Your task to perform on an android device: change the clock style Image 0: 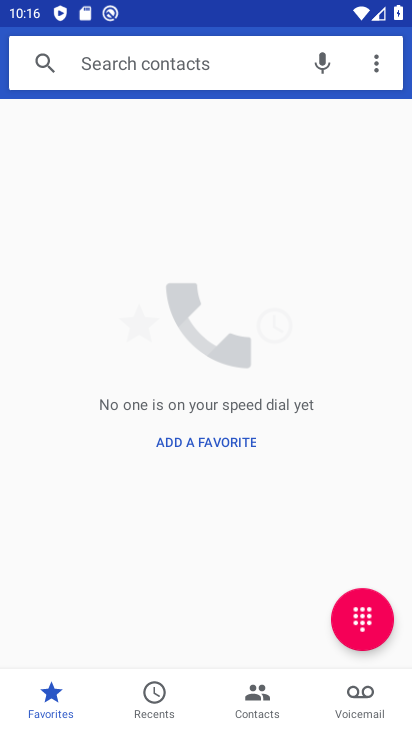
Step 0: press home button
Your task to perform on an android device: change the clock style Image 1: 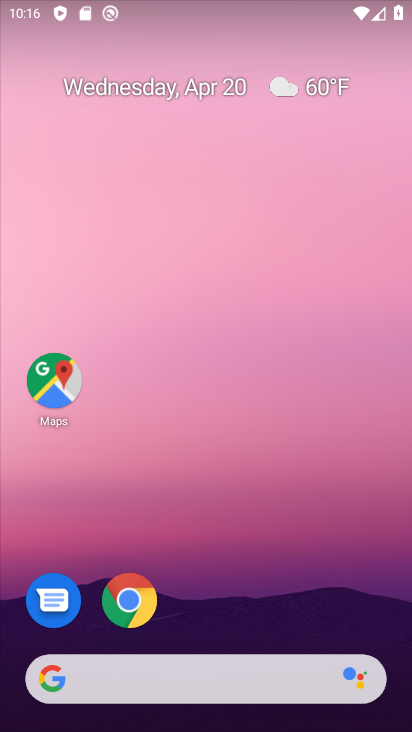
Step 1: drag from (319, 628) to (275, 42)
Your task to perform on an android device: change the clock style Image 2: 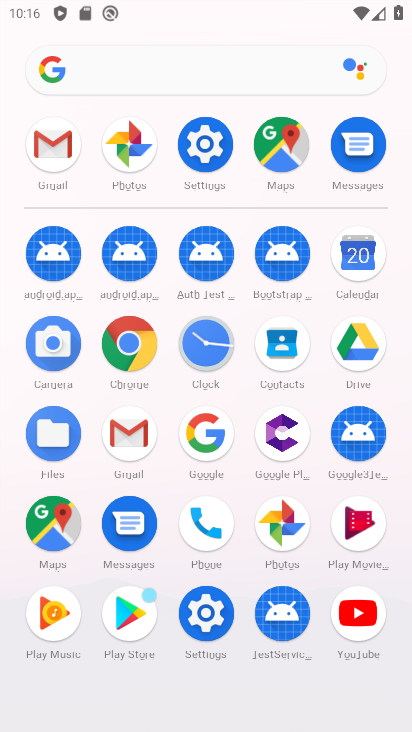
Step 2: click (211, 355)
Your task to perform on an android device: change the clock style Image 3: 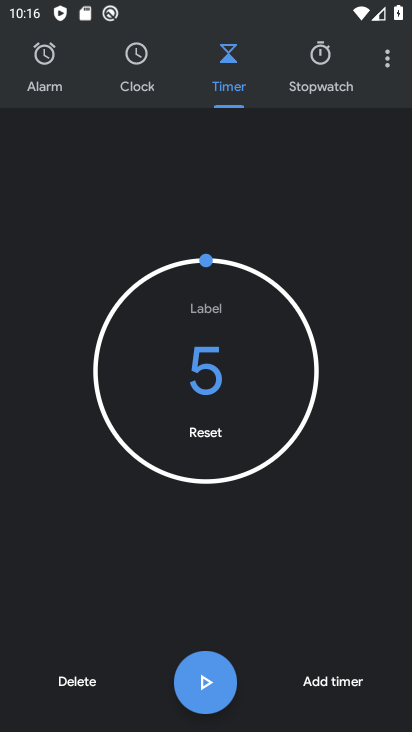
Step 3: click (401, 69)
Your task to perform on an android device: change the clock style Image 4: 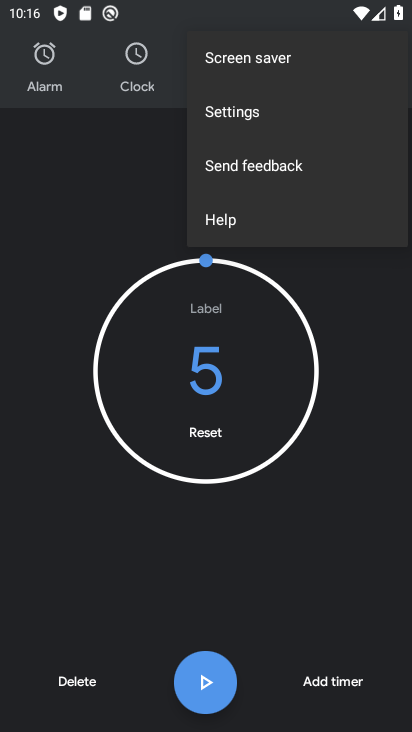
Step 4: click (277, 135)
Your task to perform on an android device: change the clock style Image 5: 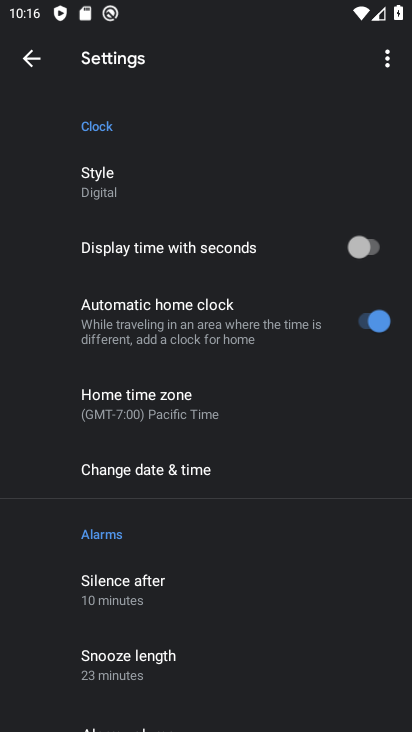
Step 5: click (161, 178)
Your task to perform on an android device: change the clock style Image 6: 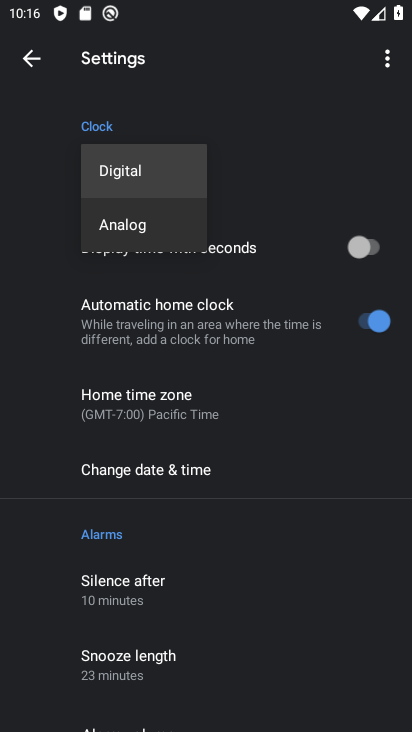
Step 6: click (160, 223)
Your task to perform on an android device: change the clock style Image 7: 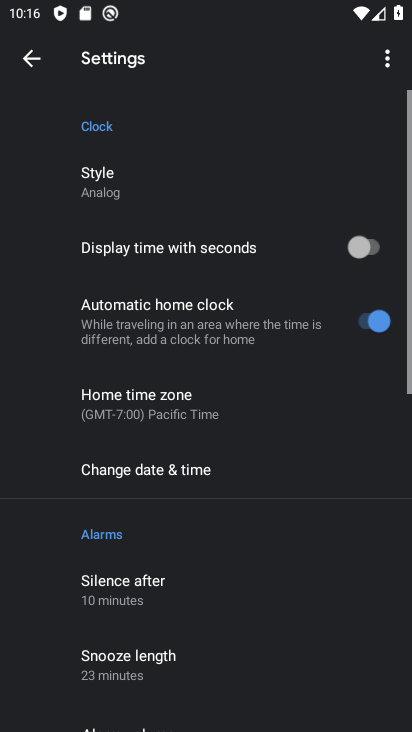
Step 7: task complete